Your task to perform on an android device: make emails show in primary in the gmail app Image 0: 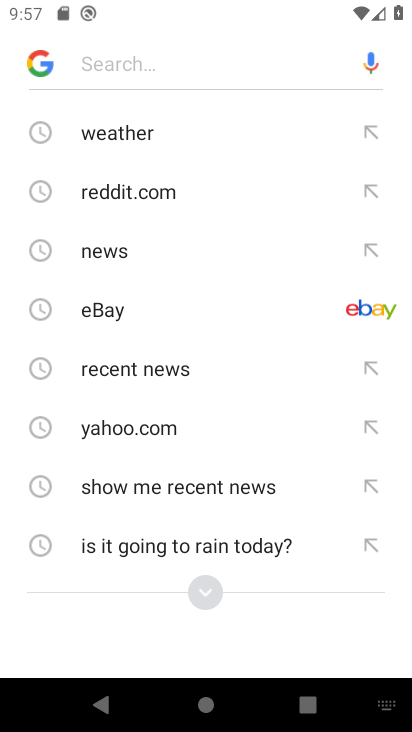
Step 0: press home button
Your task to perform on an android device: make emails show in primary in the gmail app Image 1: 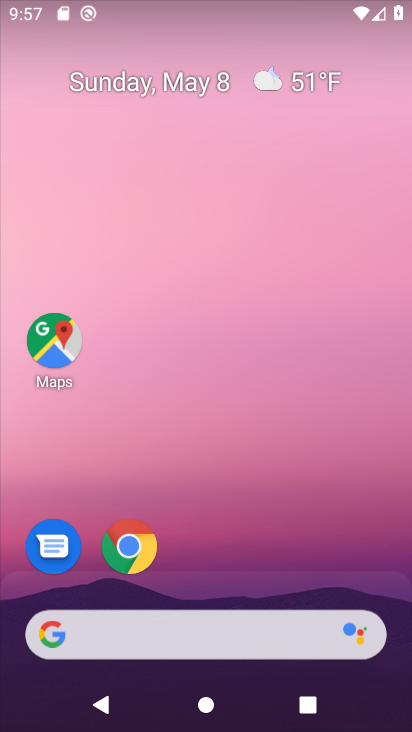
Step 1: drag from (359, 589) to (256, 20)
Your task to perform on an android device: make emails show in primary in the gmail app Image 2: 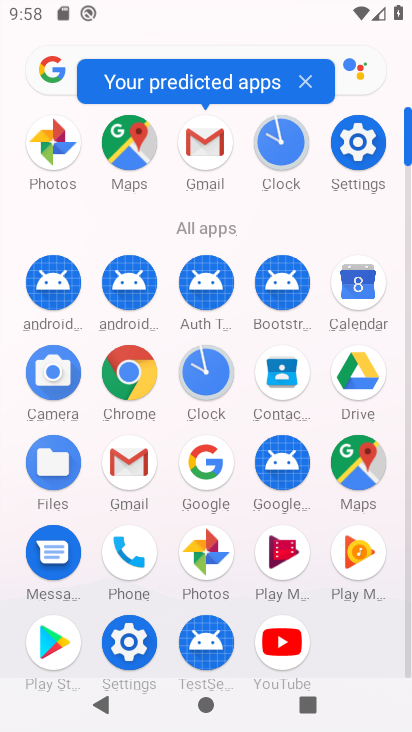
Step 2: click (407, 655)
Your task to perform on an android device: make emails show in primary in the gmail app Image 3: 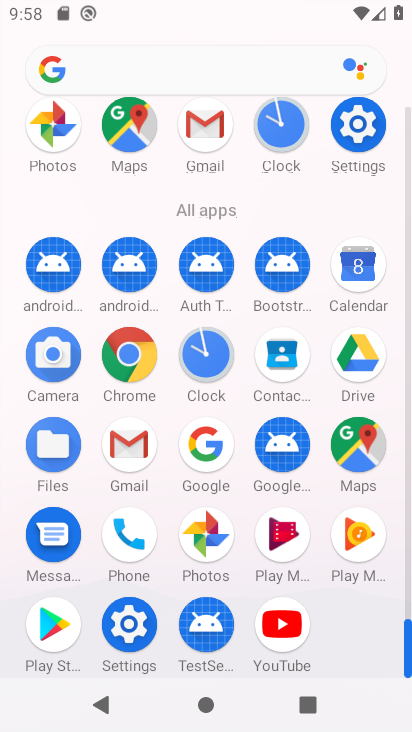
Step 3: click (127, 445)
Your task to perform on an android device: make emails show in primary in the gmail app Image 4: 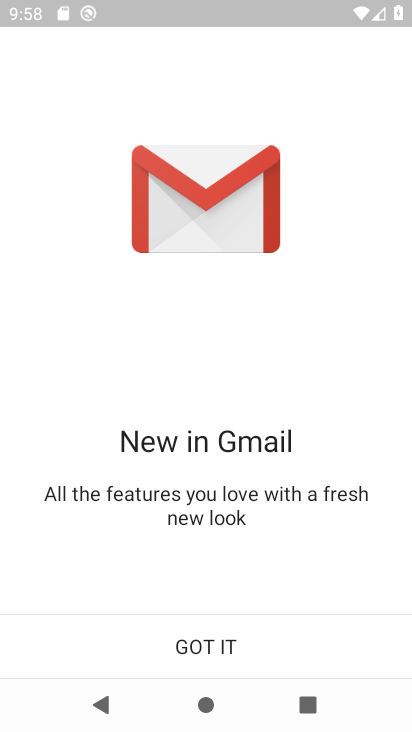
Step 4: click (206, 638)
Your task to perform on an android device: make emails show in primary in the gmail app Image 5: 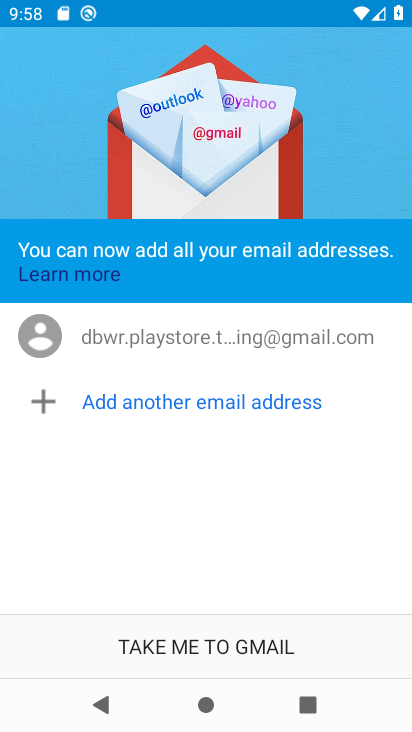
Step 5: click (206, 638)
Your task to perform on an android device: make emails show in primary in the gmail app Image 6: 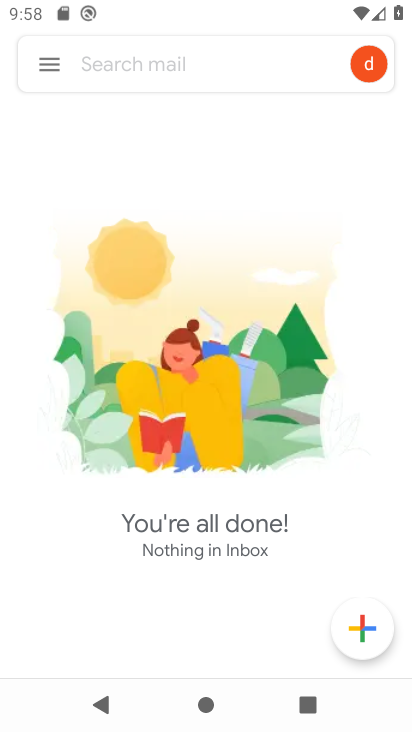
Step 6: click (41, 58)
Your task to perform on an android device: make emails show in primary in the gmail app Image 7: 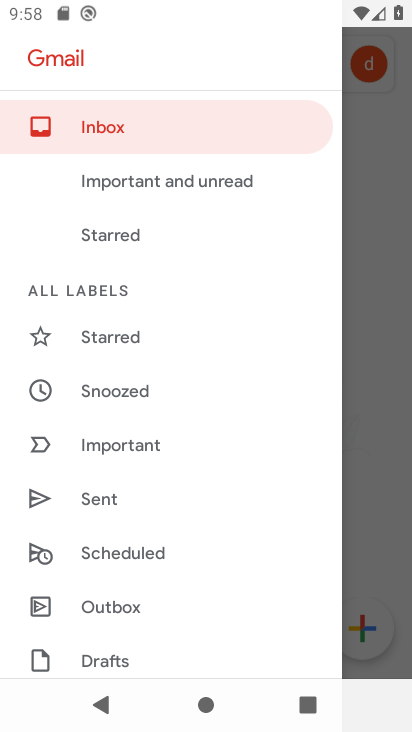
Step 7: drag from (187, 625) to (200, 184)
Your task to perform on an android device: make emails show in primary in the gmail app Image 8: 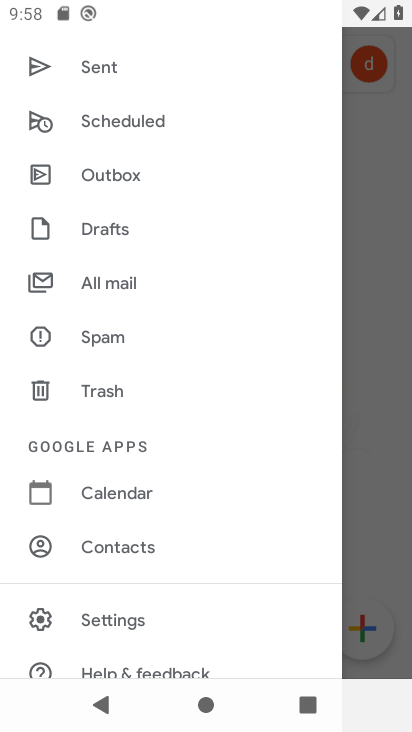
Step 8: click (124, 603)
Your task to perform on an android device: make emails show in primary in the gmail app Image 9: 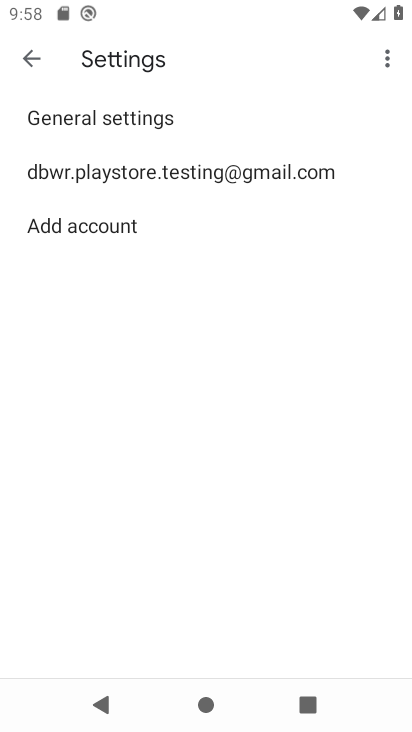
Step 9: click (114, 171)
Your task to perform on an android device: make emails show in primary in the gmail app Image 10: 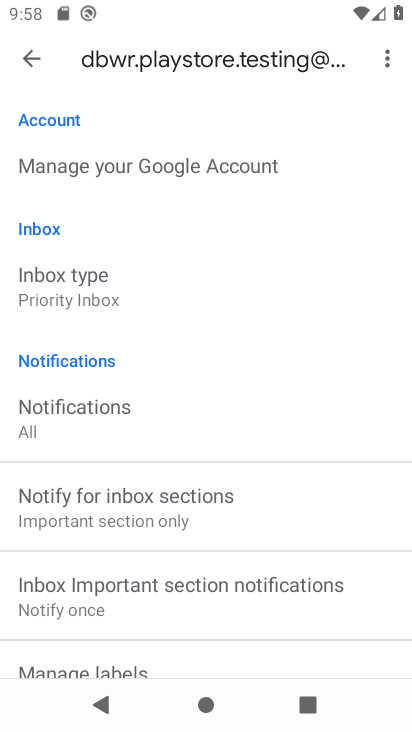
Step 10: click (68, 291)
Your task to perform on an android device: make emails show in primary in the gmail app Image 11: 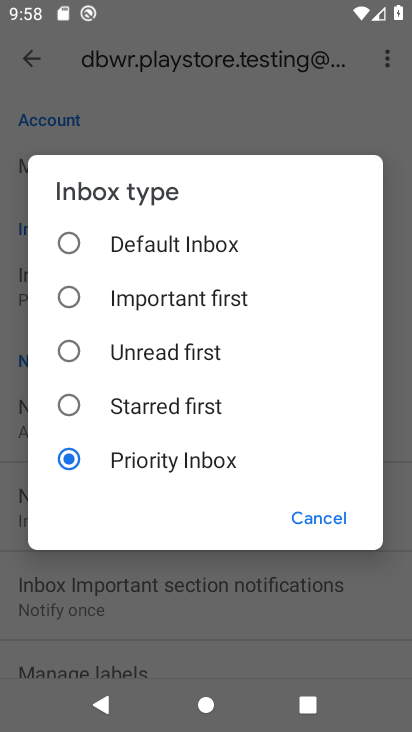
Step 11: click (61, 236)
Your task to perform on an android device: make emails show in primary in the gmail app Image 12: 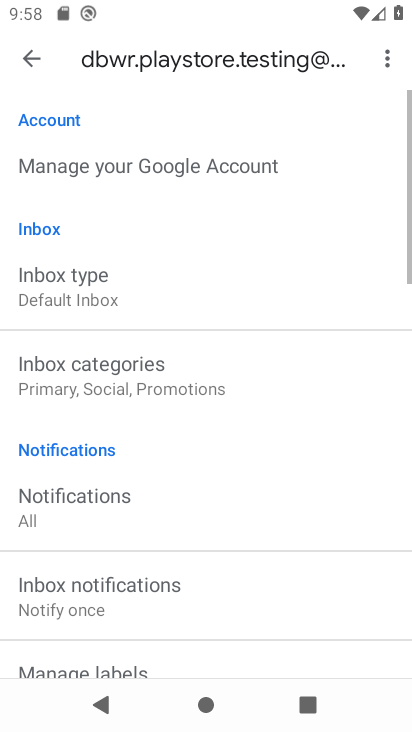
Step 12: click (72, 361)
Your task to perform on an android device: make emails show in primary in the gmail app Image 13: 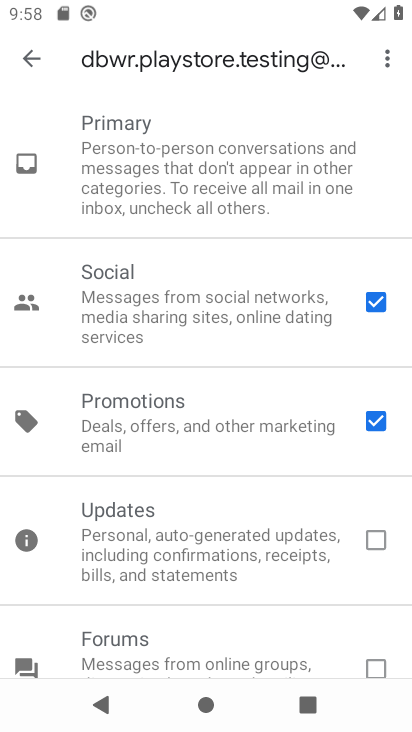
Step 13: click (374, 418)
Your task to perform on an android device: make emails show in primary in the gmail app Image 14: 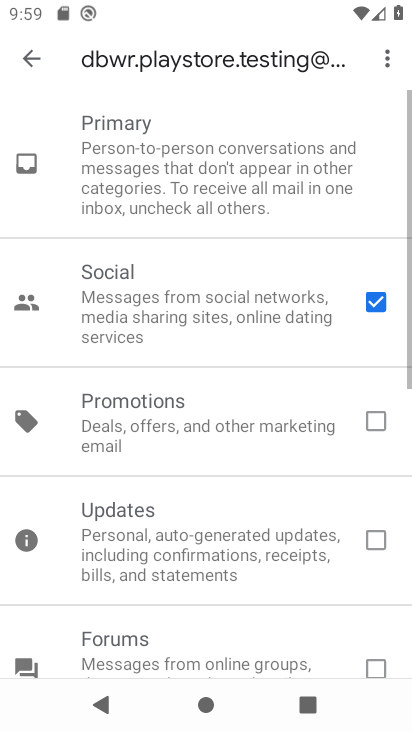
Step 14: click (376, 295)
Your task to perform on an android device: make emails show in primary in the gmail app Image 15: 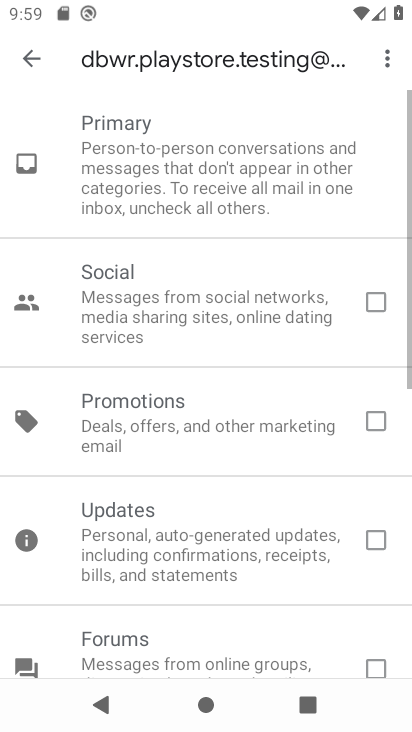
Step 15: task complete